Your task to perform on an android device: turn off javascript in the chrome app Image 0: 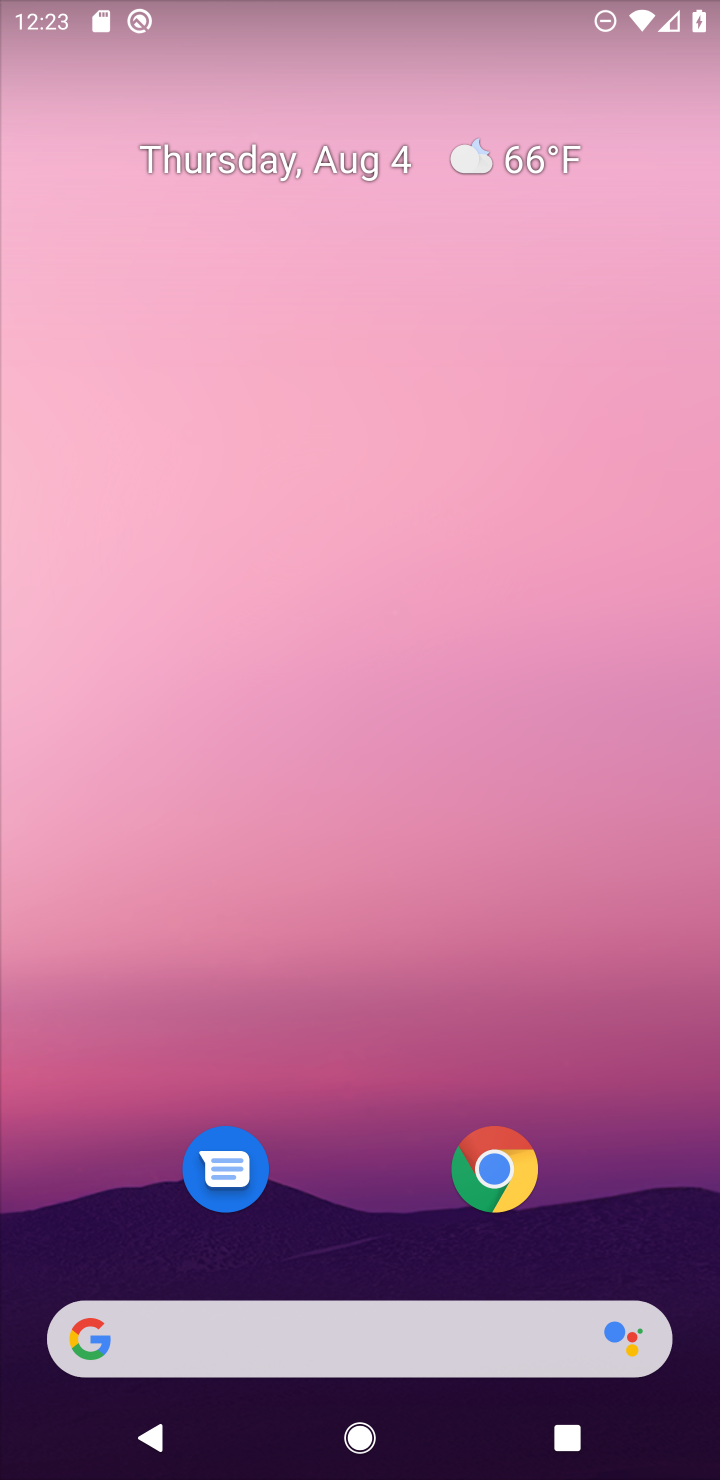
Step 0: click (488, 1145)
Your task to perform on an android device: turn off javascript in the chrome app Image 1: 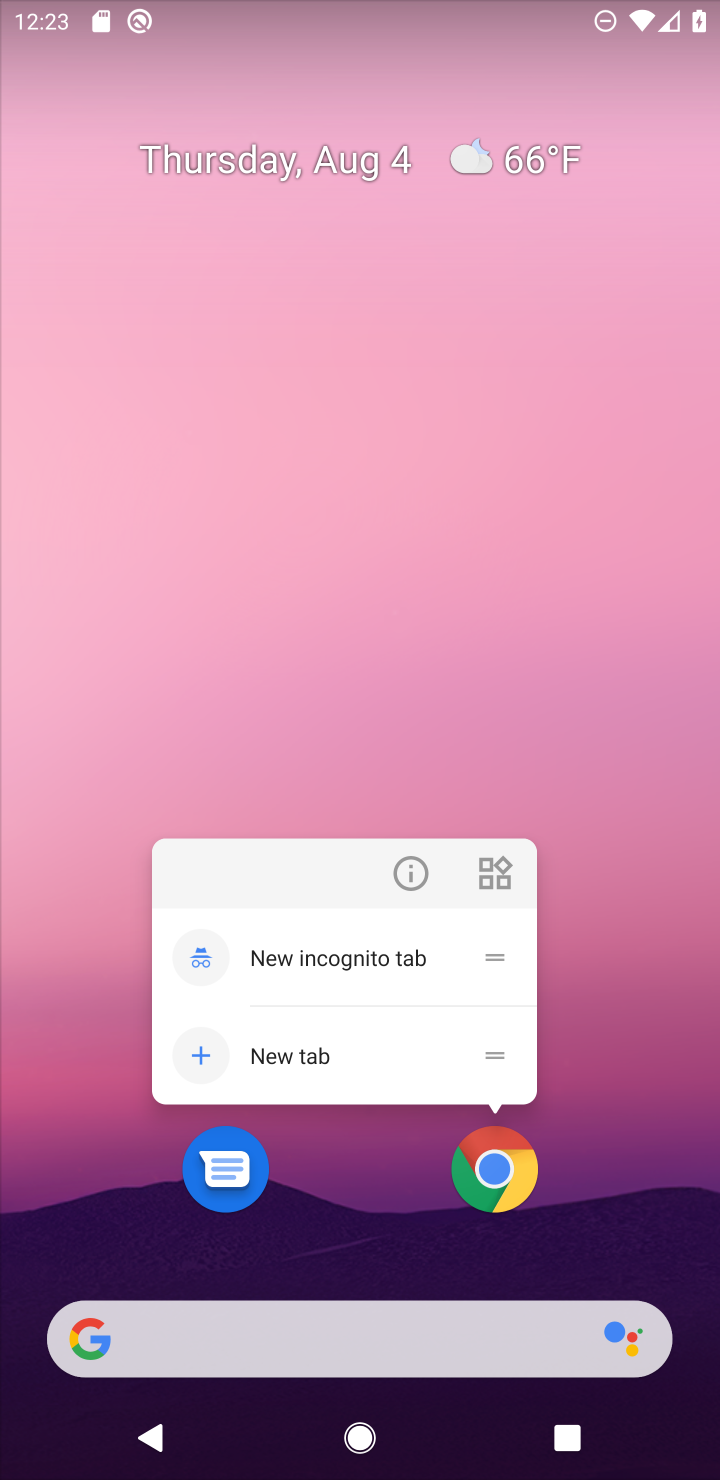
Step 1: click (497, 1175)
Your task to perform on an android device: turn off javascript in the chrome app Image 2: 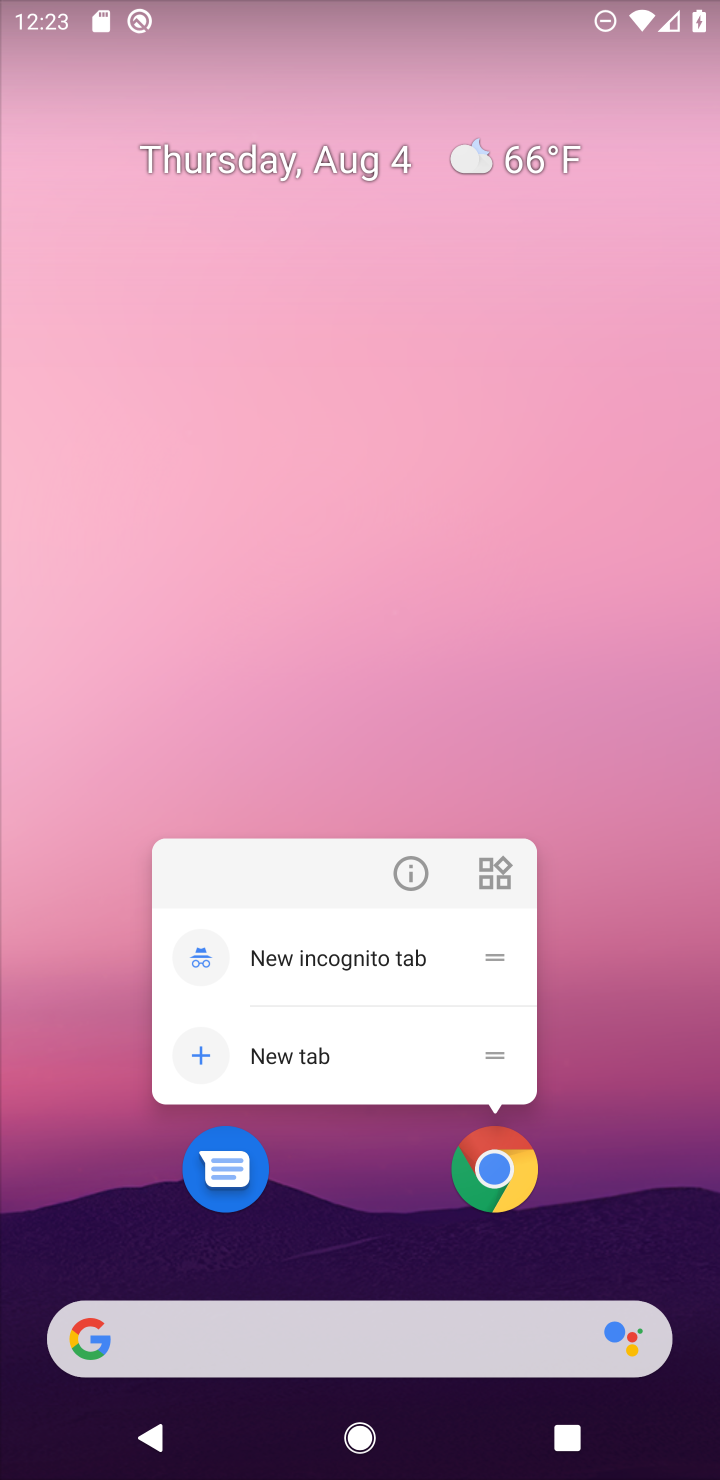
Step 2: click (497, 1175)
Your task to perform on an android device: turn off javascript in the chrome app Image 3: 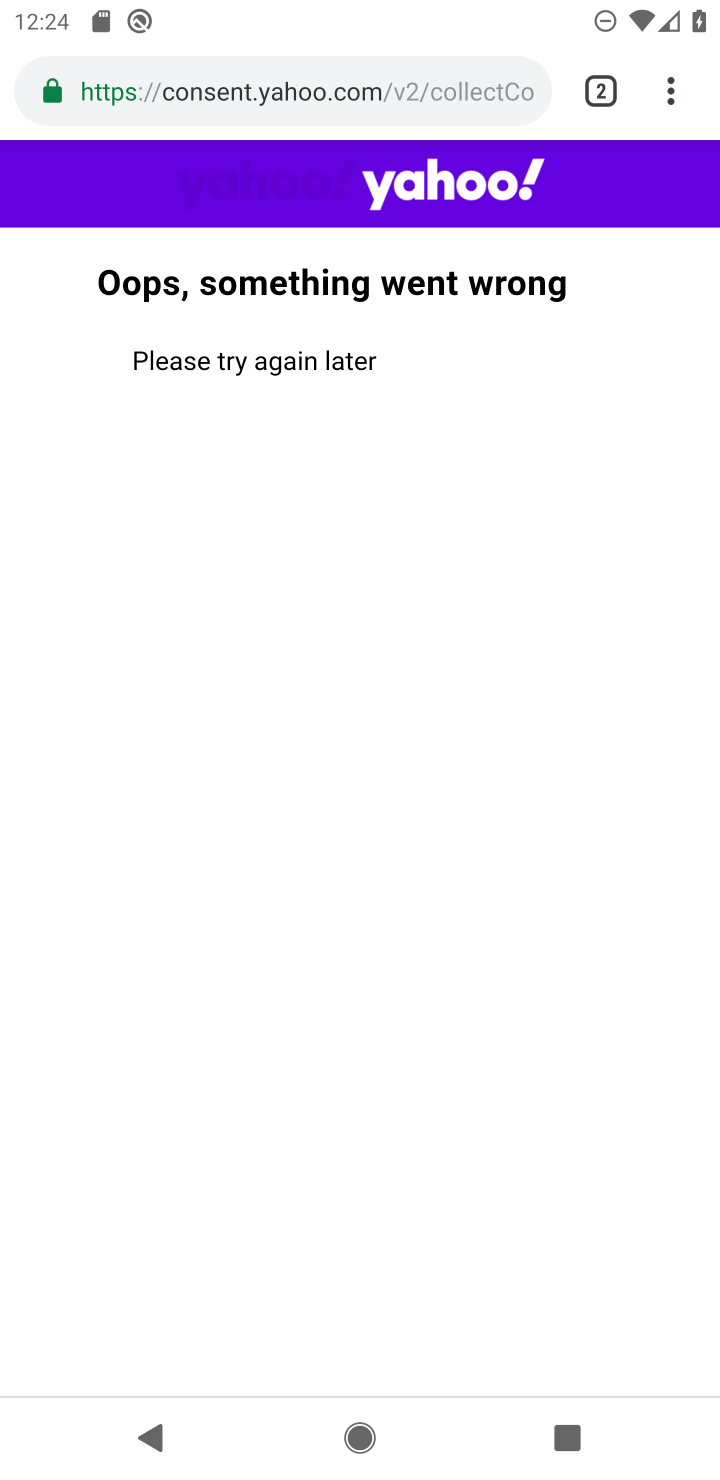
Step 3: drag from (671, 87) to (364, 1016)
Your task to perform on an android device: turn off javascript in the chrome app Image 4: 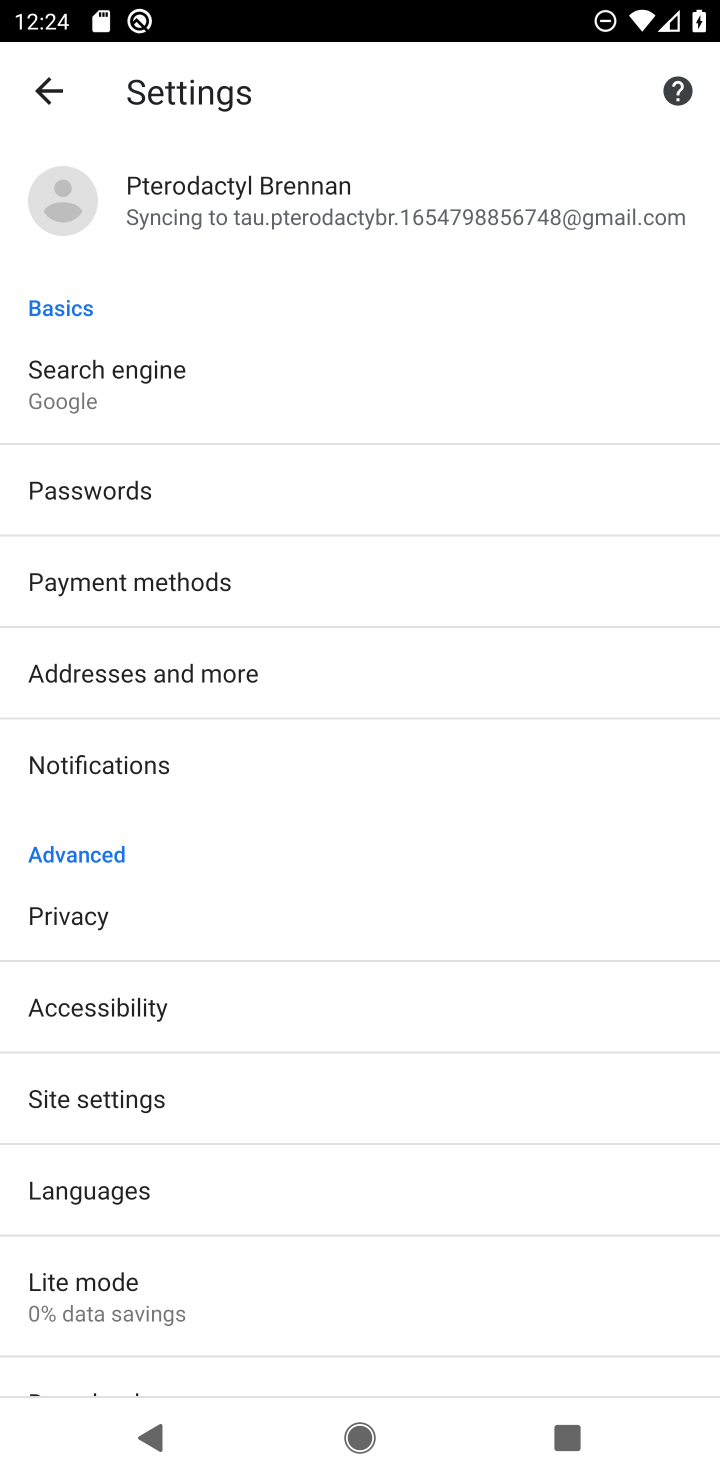
Step 4: click (125, 1114)
Your task to perform on an android device: turn off javascript in the chrome app Image 5: 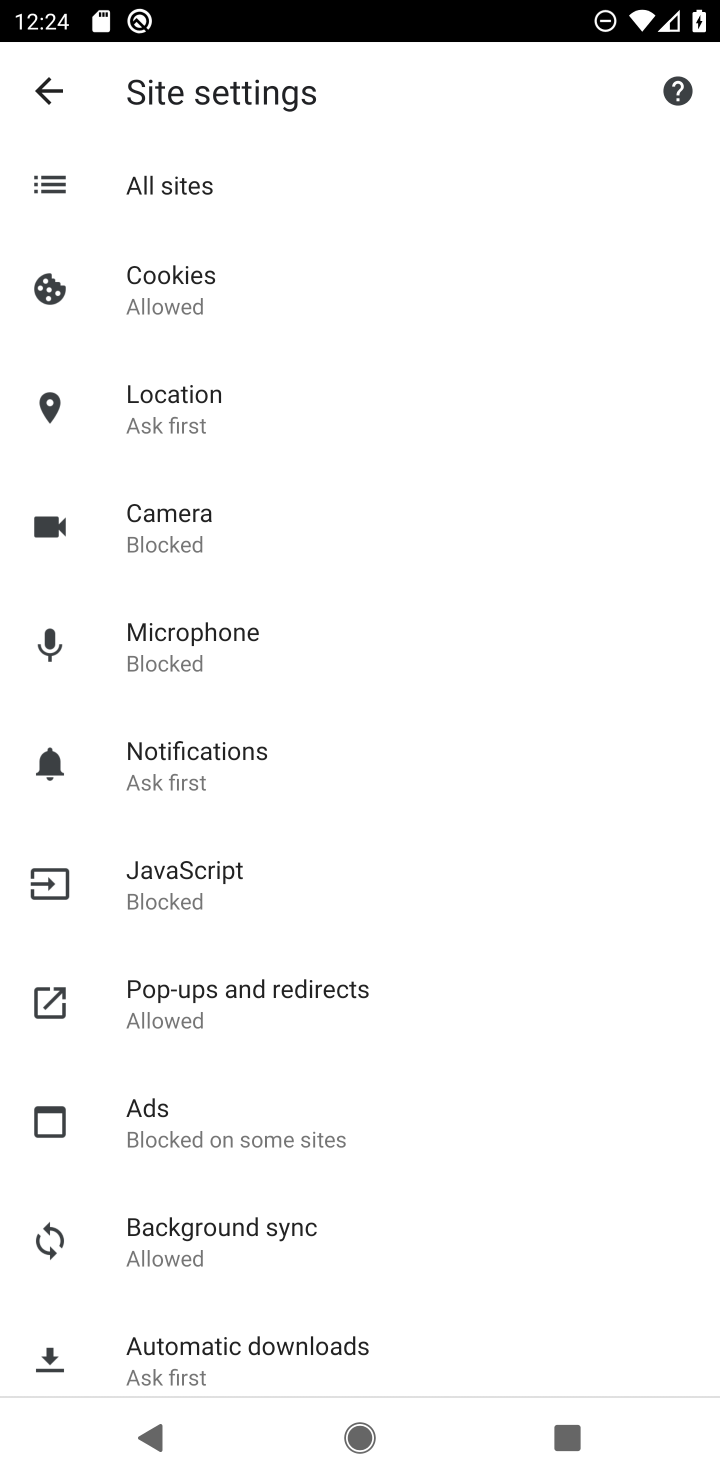
Step 5: click (197, 892)
Your task to perform on an android device: turn off javascript in the chrome app Image 6: 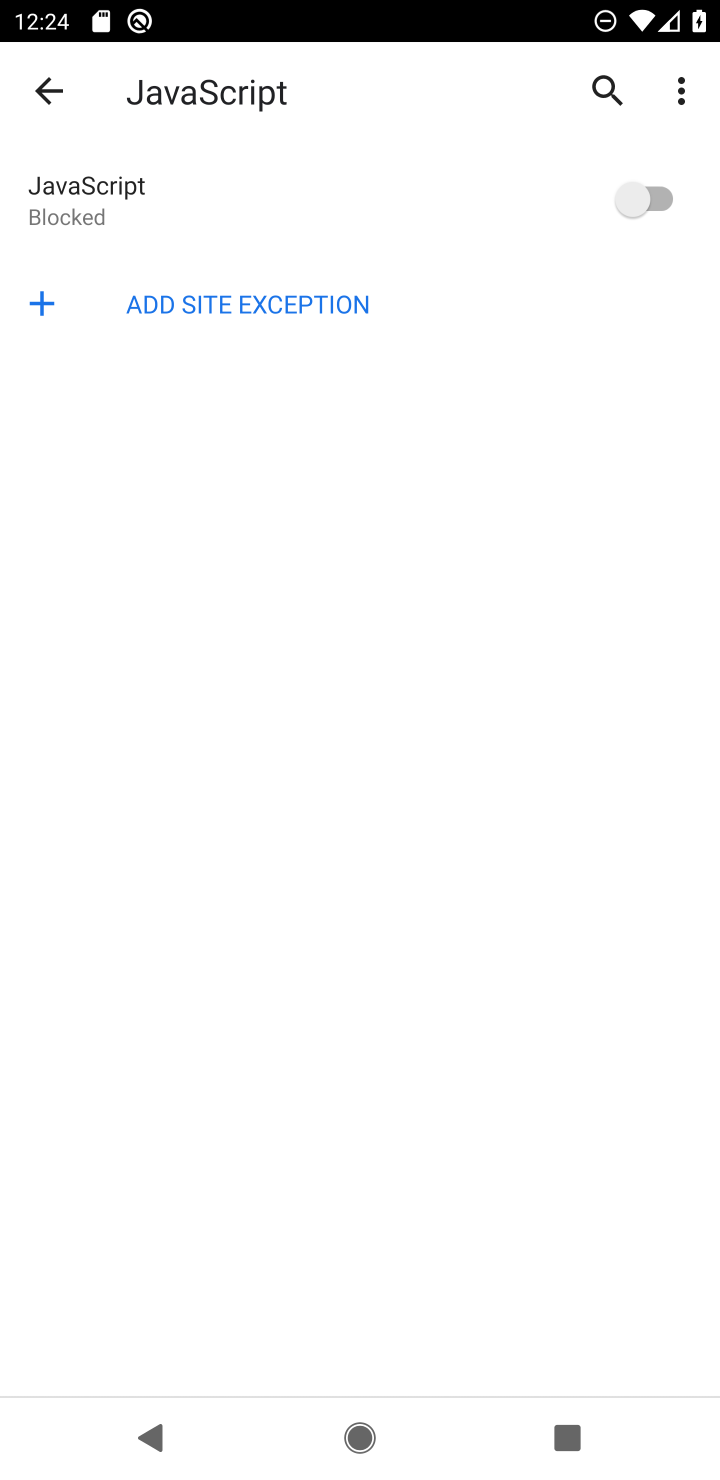
Step 6: task complete